Your task to perform on an android device: Open Wikipedia Image 0: 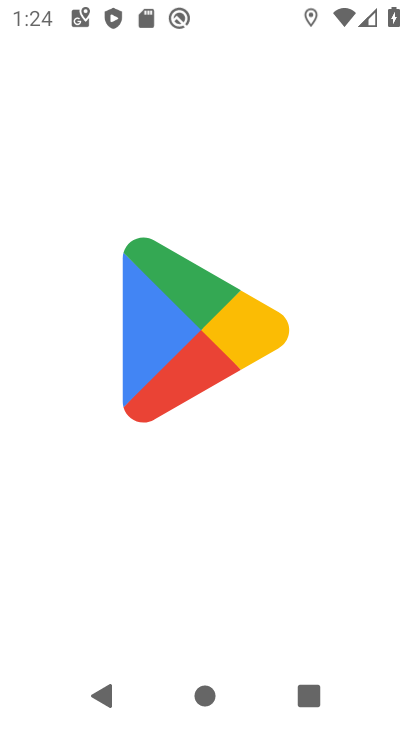
Step 0: drag from (183, 559) to (229, 56)
Your task to perform on an android device: Open Wikipedia Image 1: 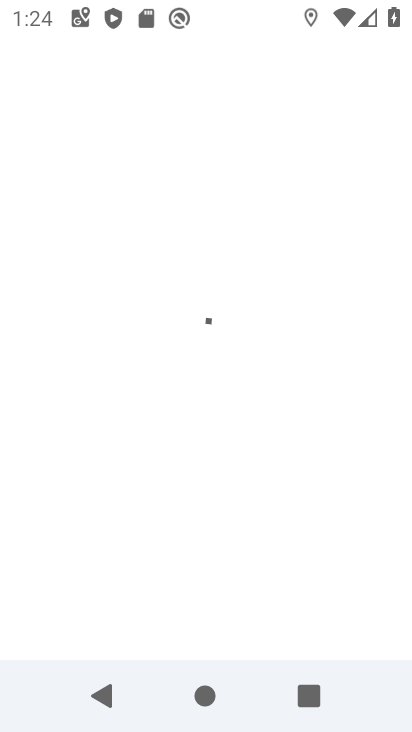
Step 1: press back button
Your task to perform on an android device: Open Wikipedia Image 2: 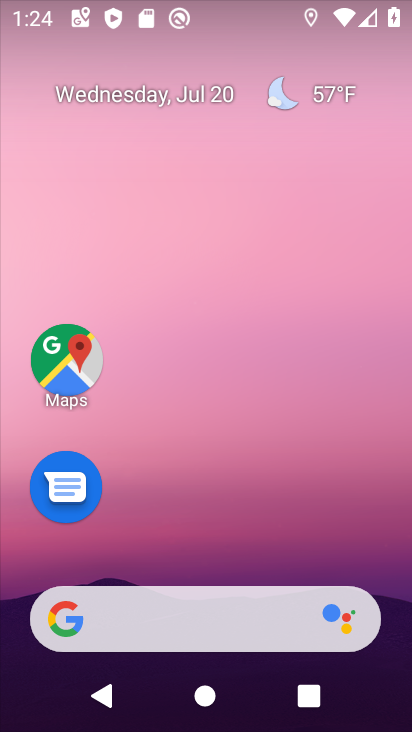
Step 2: drag from (201, 540) to (259, 5)
Your task to perform on an android device: Open Wikipedia Image 3: 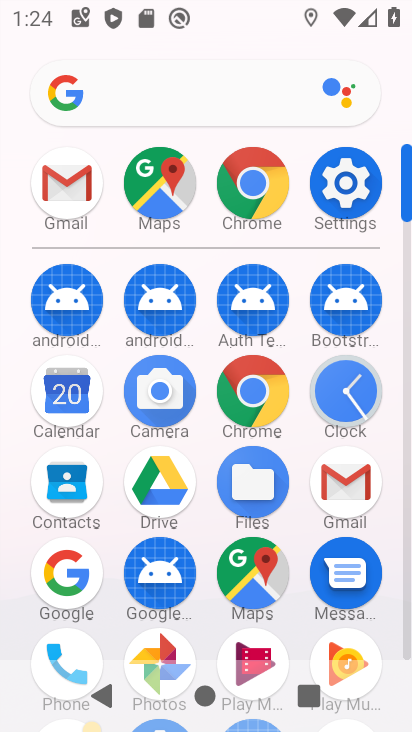
Step 3: click (243, 186)
Your task to perform on an android device: Open Wikipedia Image 4: 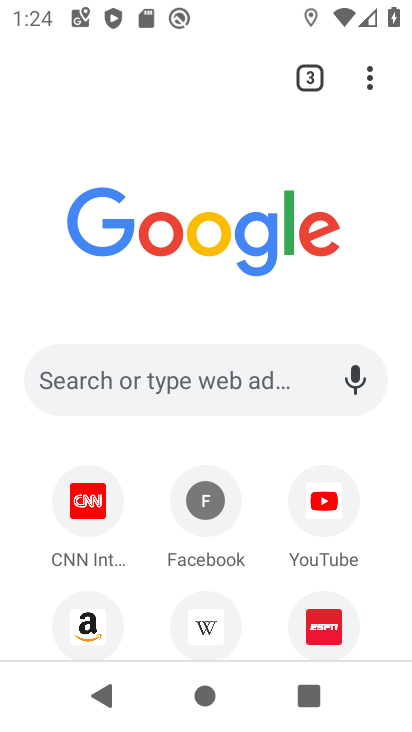
Step 4: click (198, 620)
Your task to perform on an android device: Open Wikipedia Image 5: 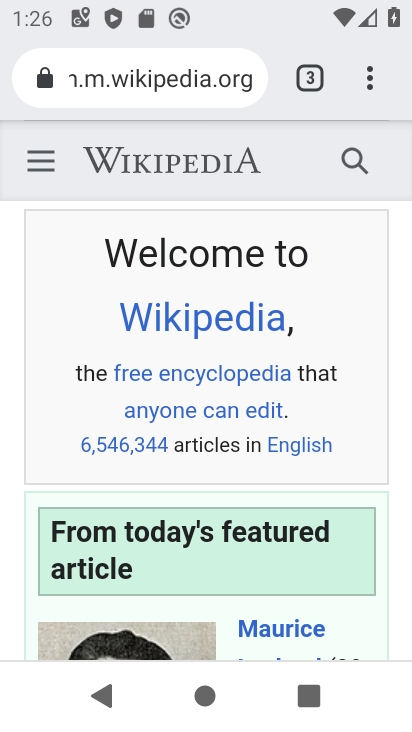
Step 5: task complete